Your task to perform on an android device: Open location settings Image 0: 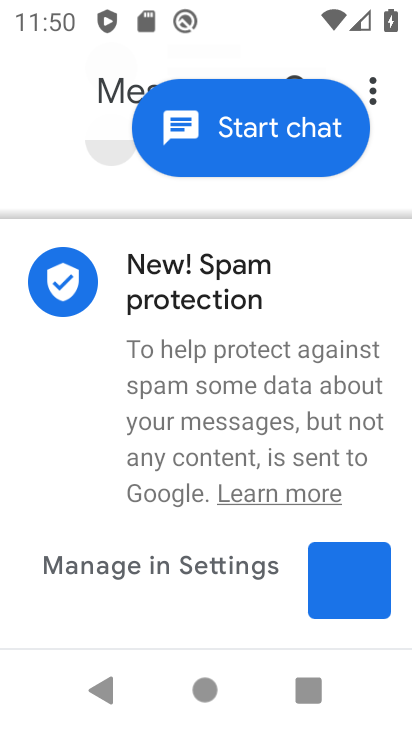
Step 0: press home button
Your task to perform on an android device: Open location settings Image 1: 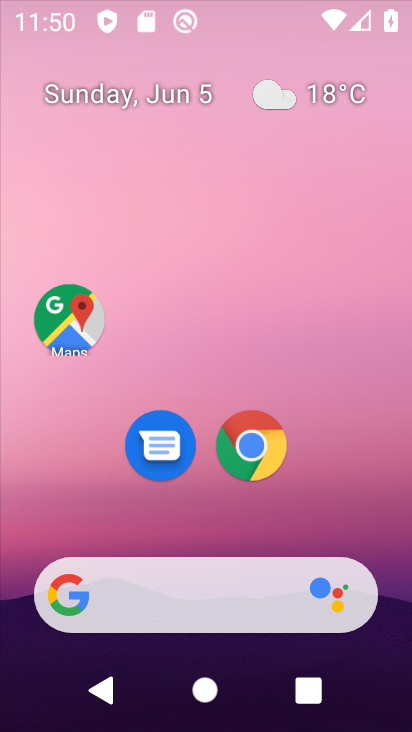
Step 1: drag from (307, 557) to (316, 0)
Your task to perform on an android device: Open location settings Image 2: 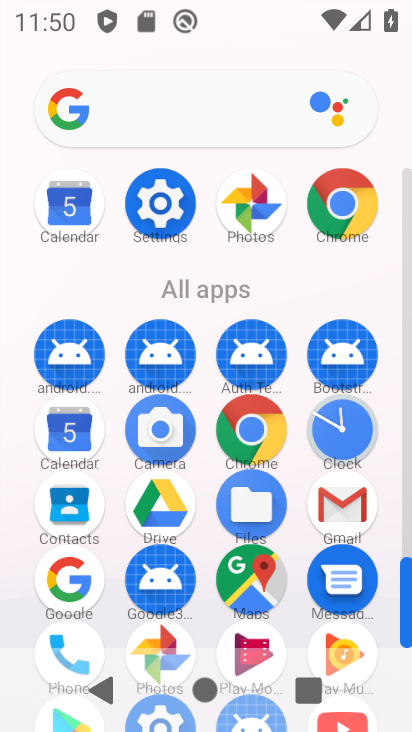
Step 2: click (175, 204)
Your task to perform on an android device: Open location settings Image 3: 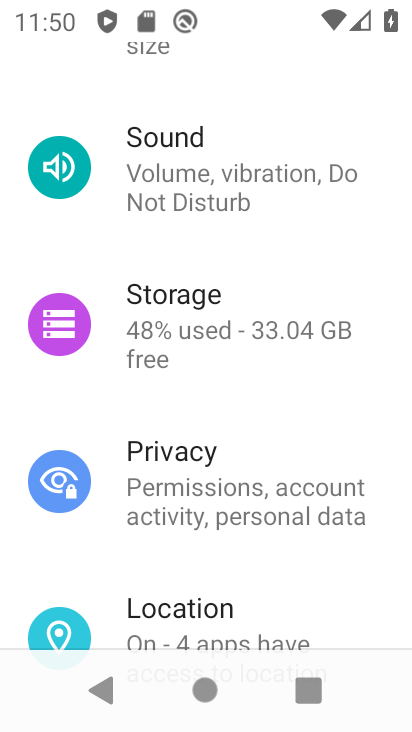
Step 3: click (196, 635)
Your task to perform on an android device: Open location settings Image 4: 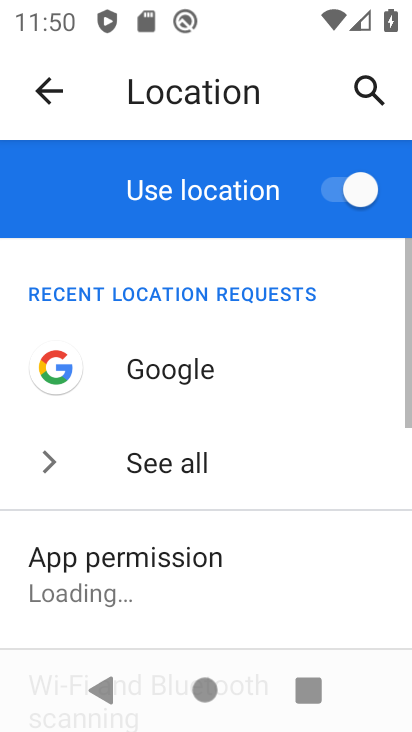
Step 4: task complete